Your task to perform on an android device: Open Google Chrome and click the shortcut for Amazon.com Image 0: 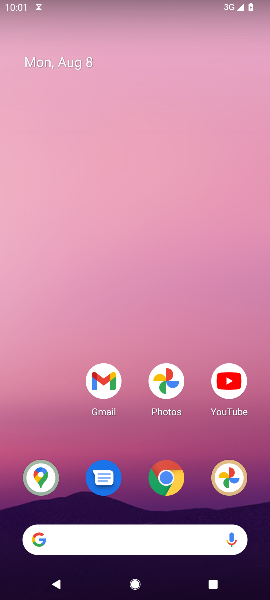
Step 0: click (165, 485)
Your task to perform on an android device: Open Google Chrome and click the shortcut for Amazon.com Image 1: 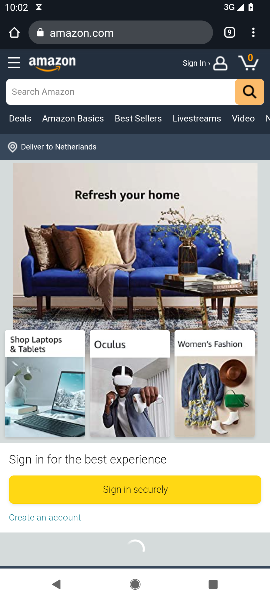
Step 1: task complete